Your task to perform on an android device: turn off notifications settings in the gmail app Image 0: 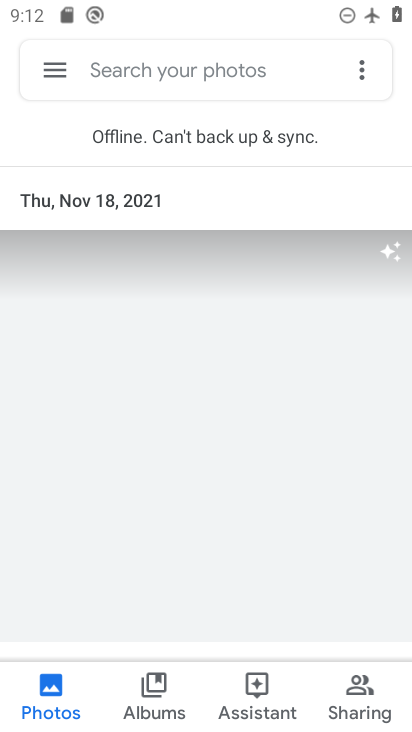
Step 0: press home button
Your task to perform on an android device: turn off notifications settings in the gmail app Image 1: 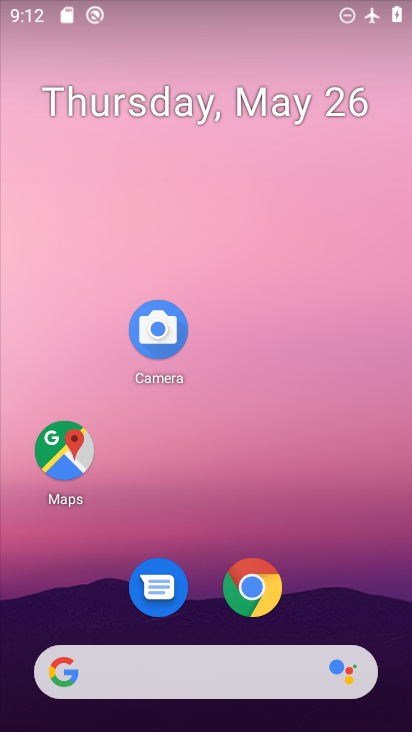
Step 1: drag from (210, 613) to (203, 206)
Your task to perform on an android device: turn off notifications settings in the gmail app Image 2: 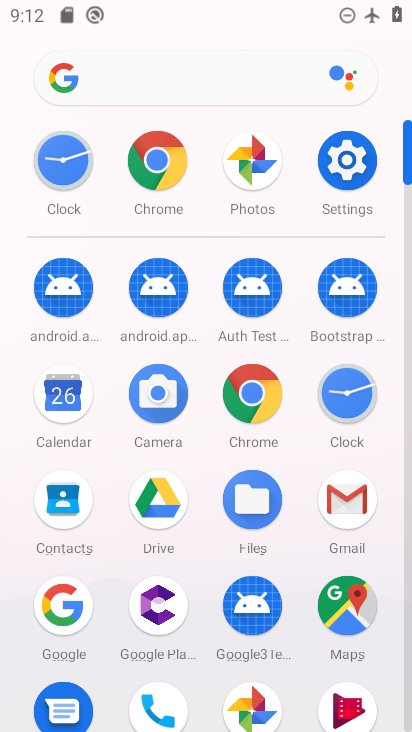
Step 2: click (329, 484)
Your task to perform on an android device: turn off notifications settings in the gmail app Image 3: 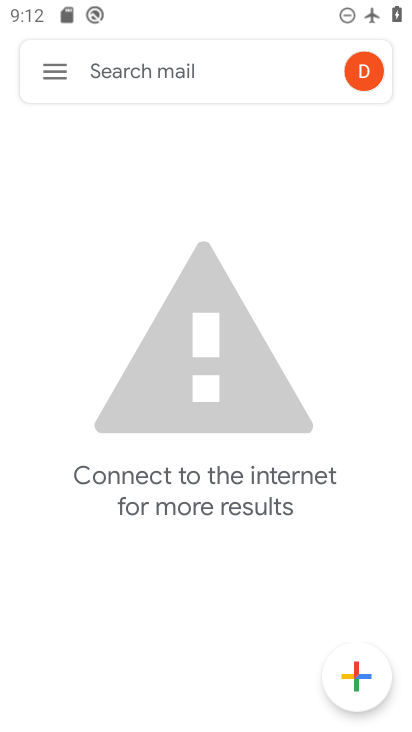
Step 3: click (52, 82)
Your task to perform on an android device: turn off notifications settings in the gmail app Image 4: 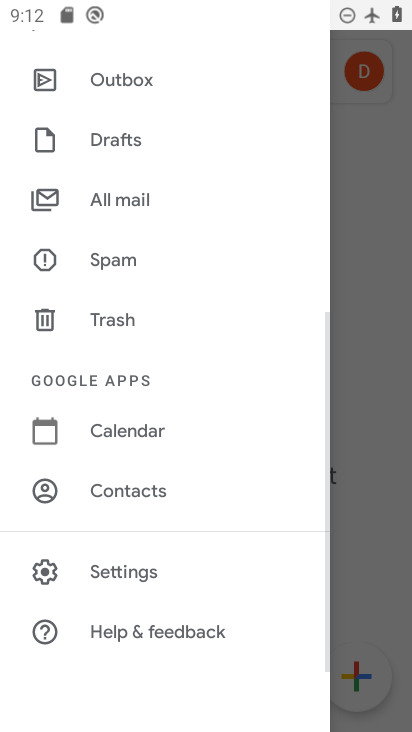
Step 4: click (141, 576)
Your task to perform on an android device: turn off notifications settings in the gmail app Image 5: 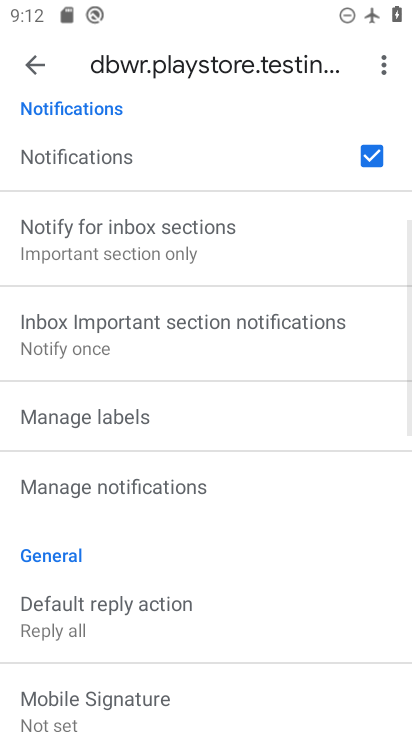
Step 5: drag from (209, 654) to (226, 331)
Your task to perform on an android device: turn off notifications settings in the gmail app Image 6: 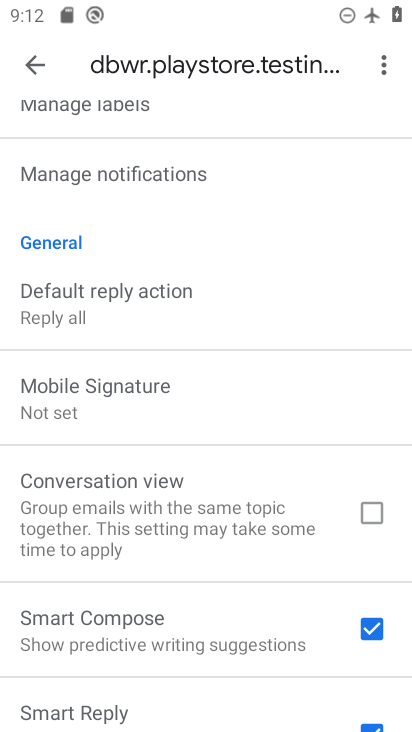
Step 6: click (206, 180)
Your task to perform on an android device: turn off notifications settings in the gmail app Image 7: 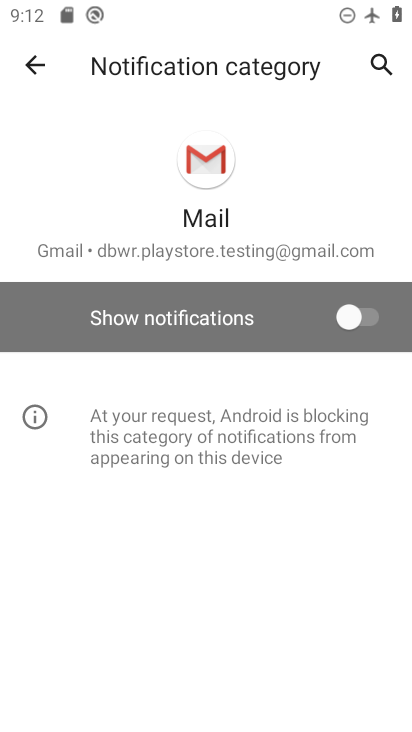
Step 7: task complete